Your task to perform on an android device: View the shopping cart on ebay.com. Add energizer triple a to the cart on ebay.com Image 0: 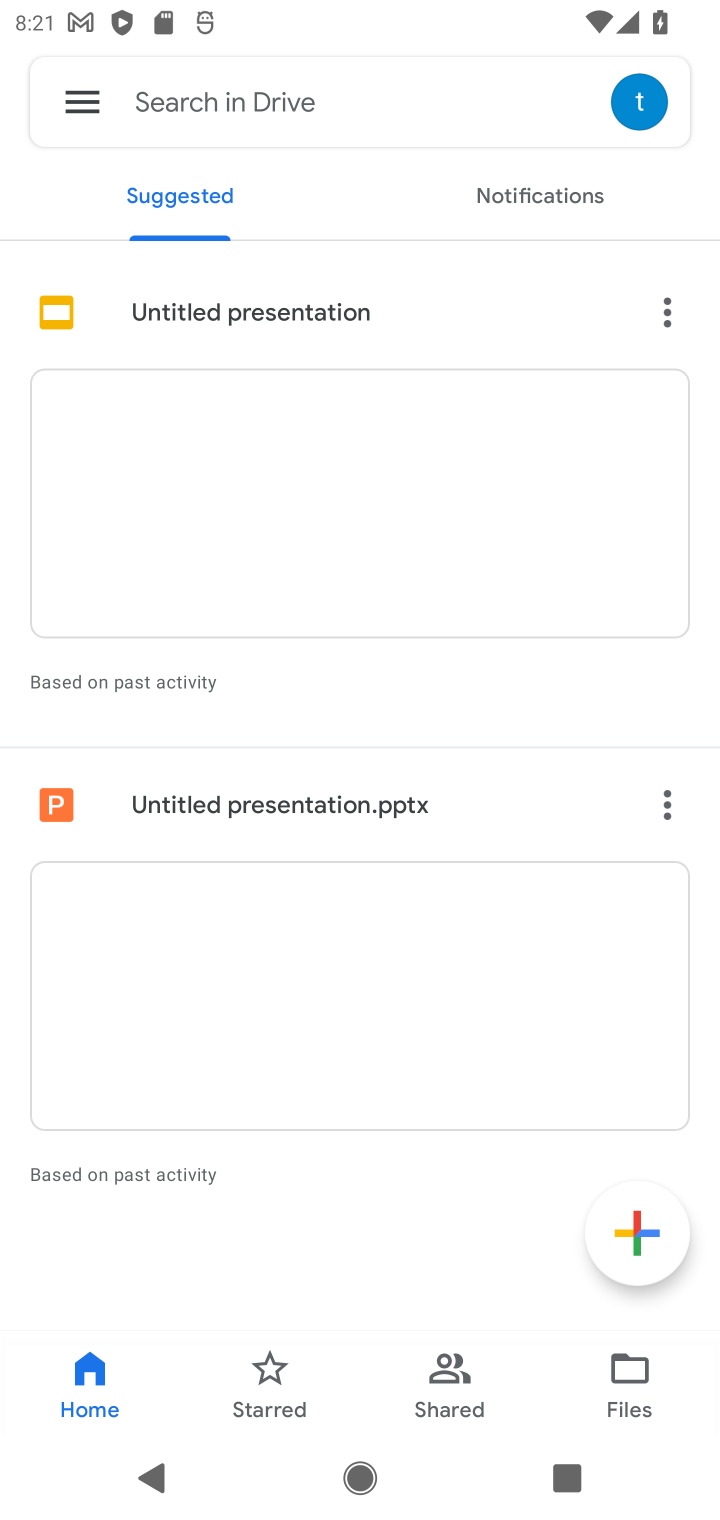
Step 0: press home button
Your task to perform on an android device: View the shopping cart on ebay.com. Add energizer triple a to the cart on ebay.com Image 1: 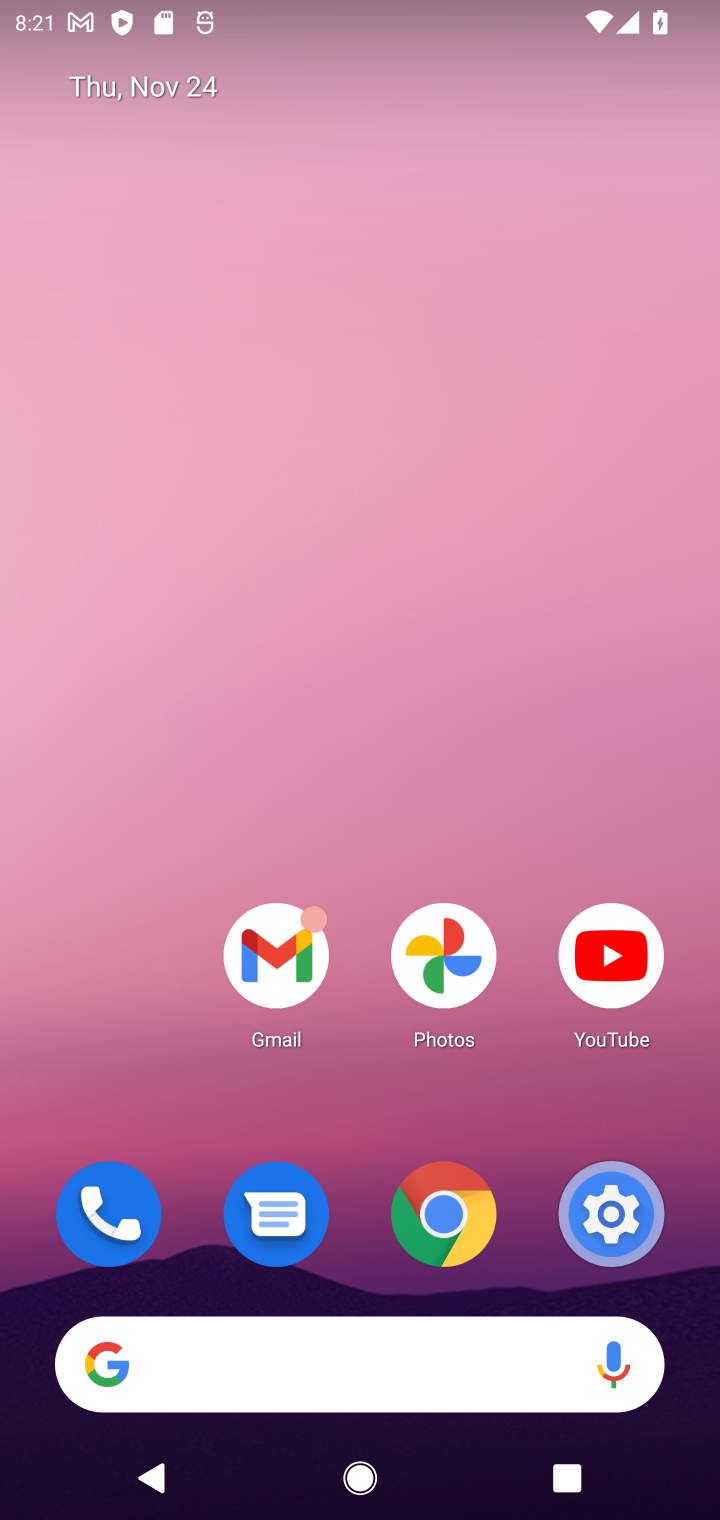
Step 1: click (367, 1341)
Your task to perform on an android device: View the shopping cart on ebay.com. Add energizer triple a to the cart on ebay.com Image 2: 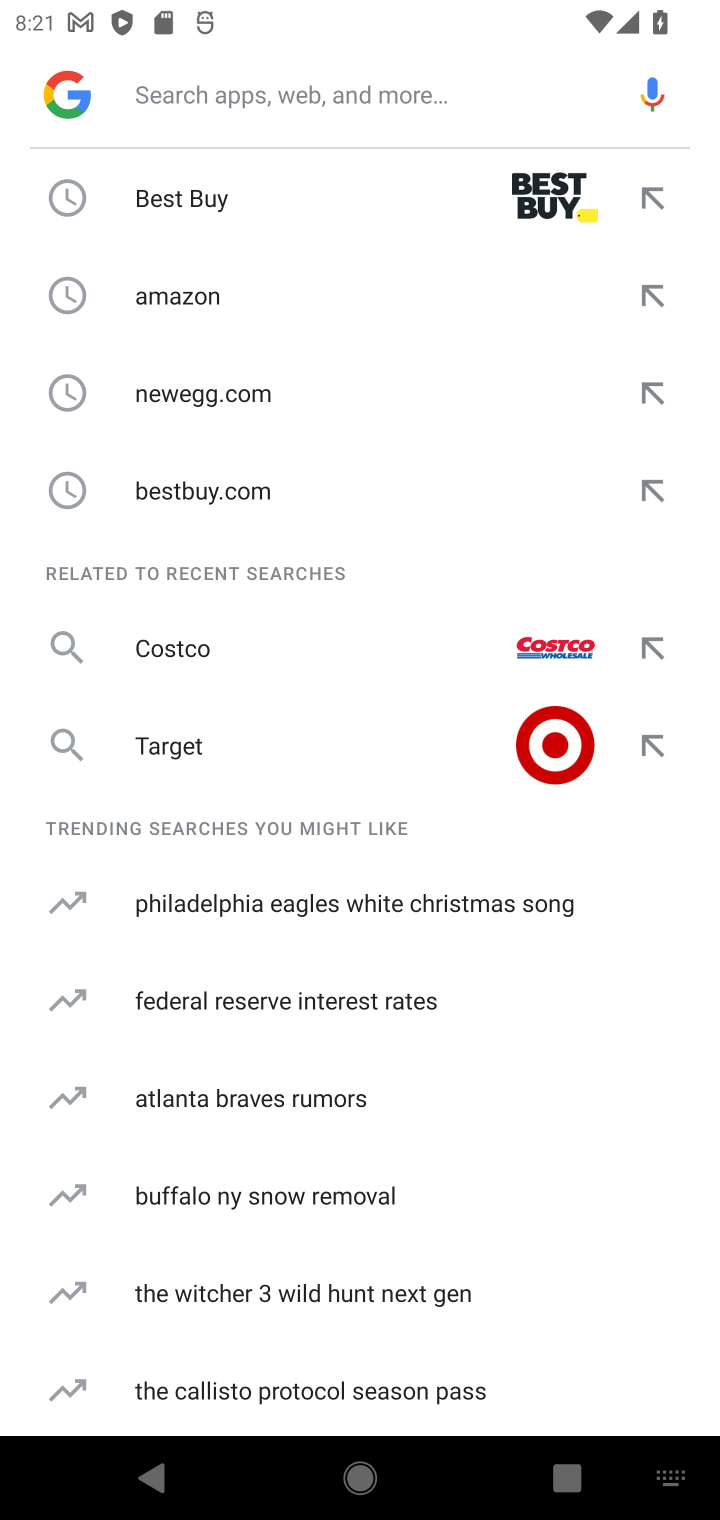
Step 2: type "ebay.com"
Your task to perform on an android device: View the shopping cart on ebay.com. Add energizer triple a to the cart on ebay.com Image 3: 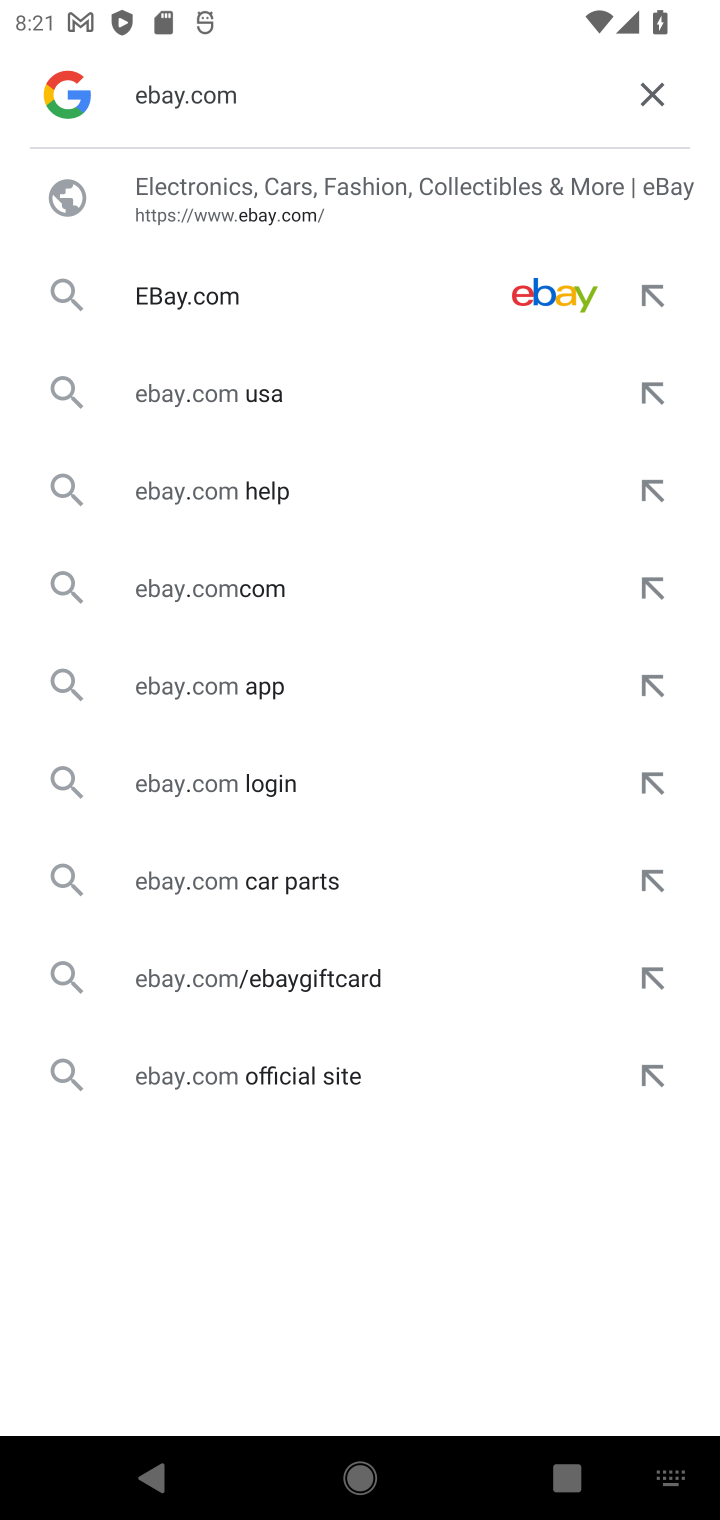
Step 3: click (239, 287)
Your task to perform on an android device: View the shopping cart on ebay.com. Add energizer triple a to the cart on ebay.com Image 4: 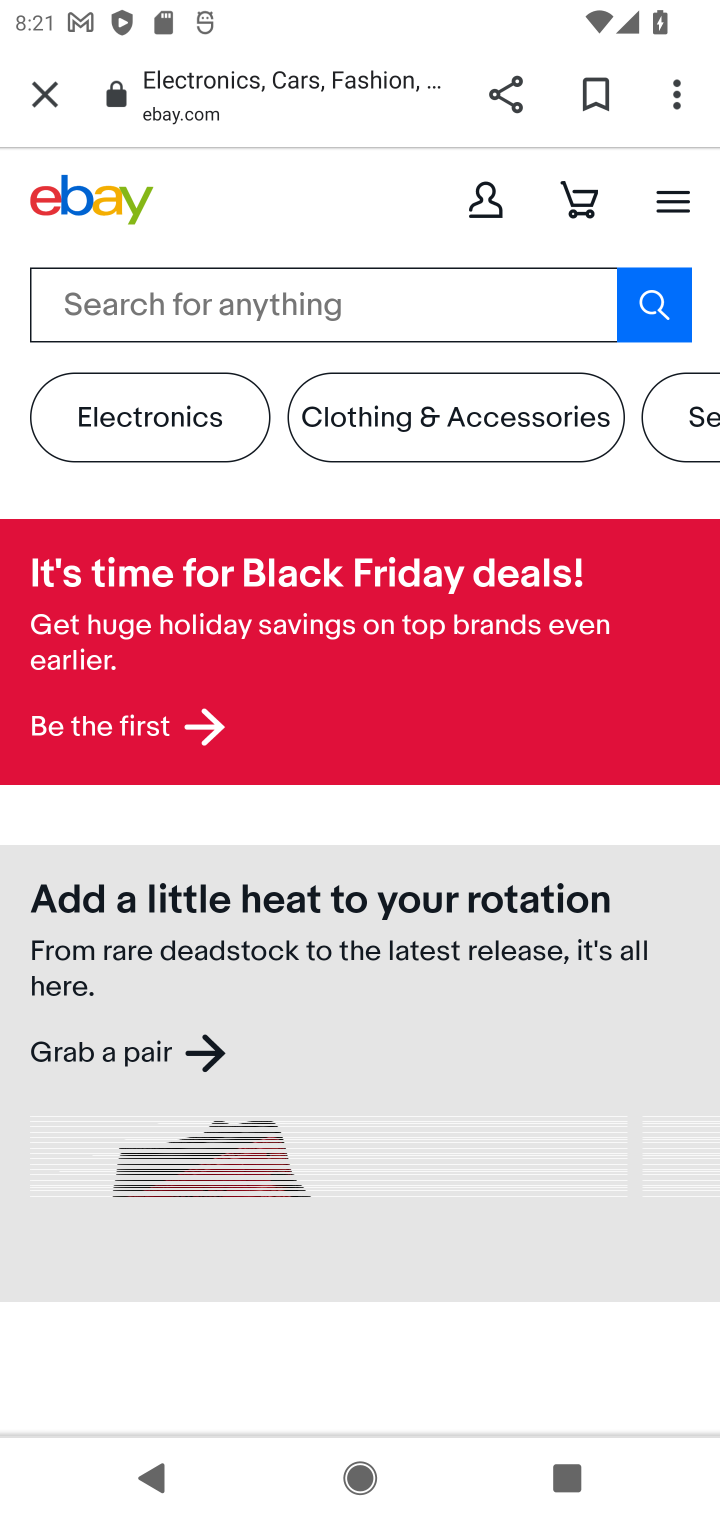
Step 4: click (226, 302)
Your task to perform on an android device: View the shopping cart on ebay.com. Add energizer triple a to the cart on ebay.com Image 5: 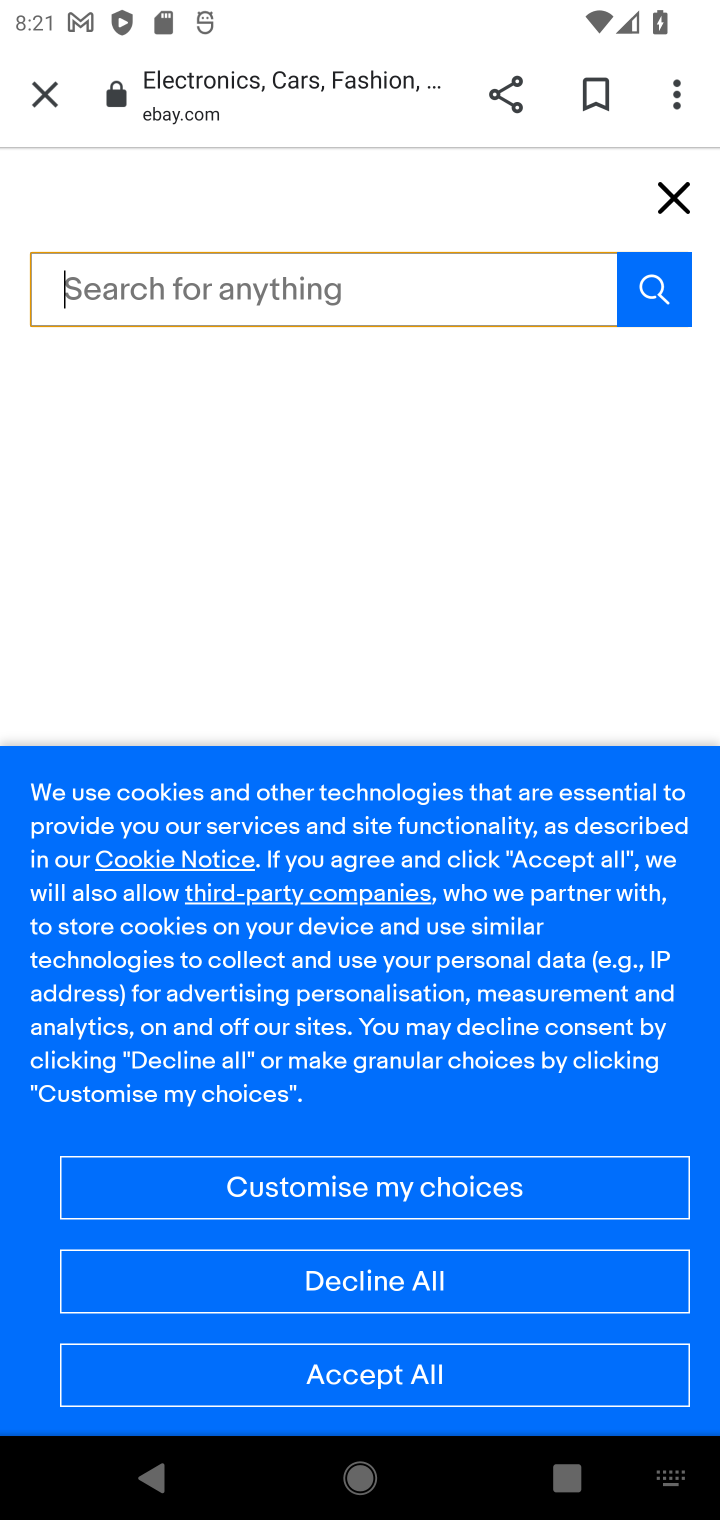
Step 5: type "energizer triple a"
Your task to perform on an android device: View the shopping cart on ebay.com. Add energizer triple a to the cart on ebay.com Image 6: 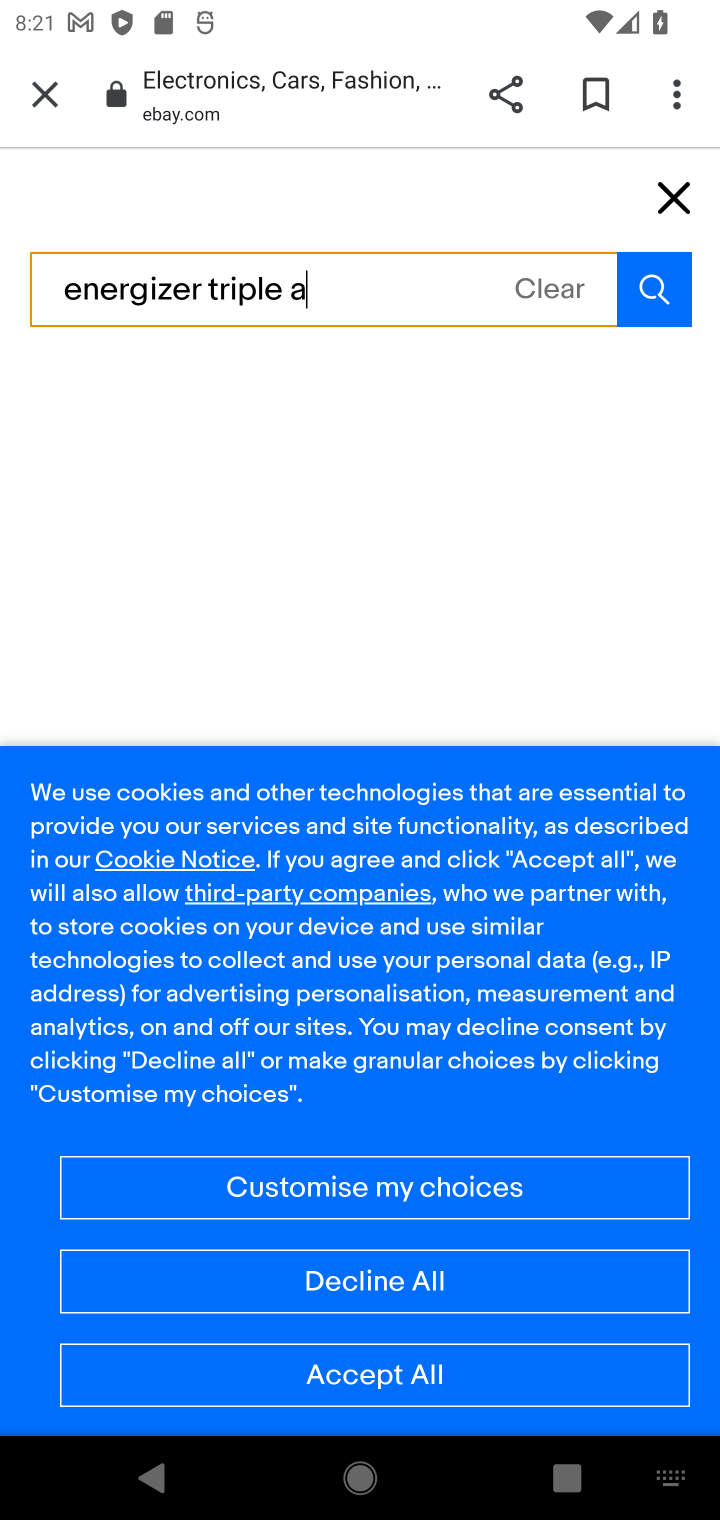
Step 6: click (659, 310)
Your task to perform on an android device: View the shopping cart on ebay.com. Add energizer triple a to the cart on ebay.com Image 7: 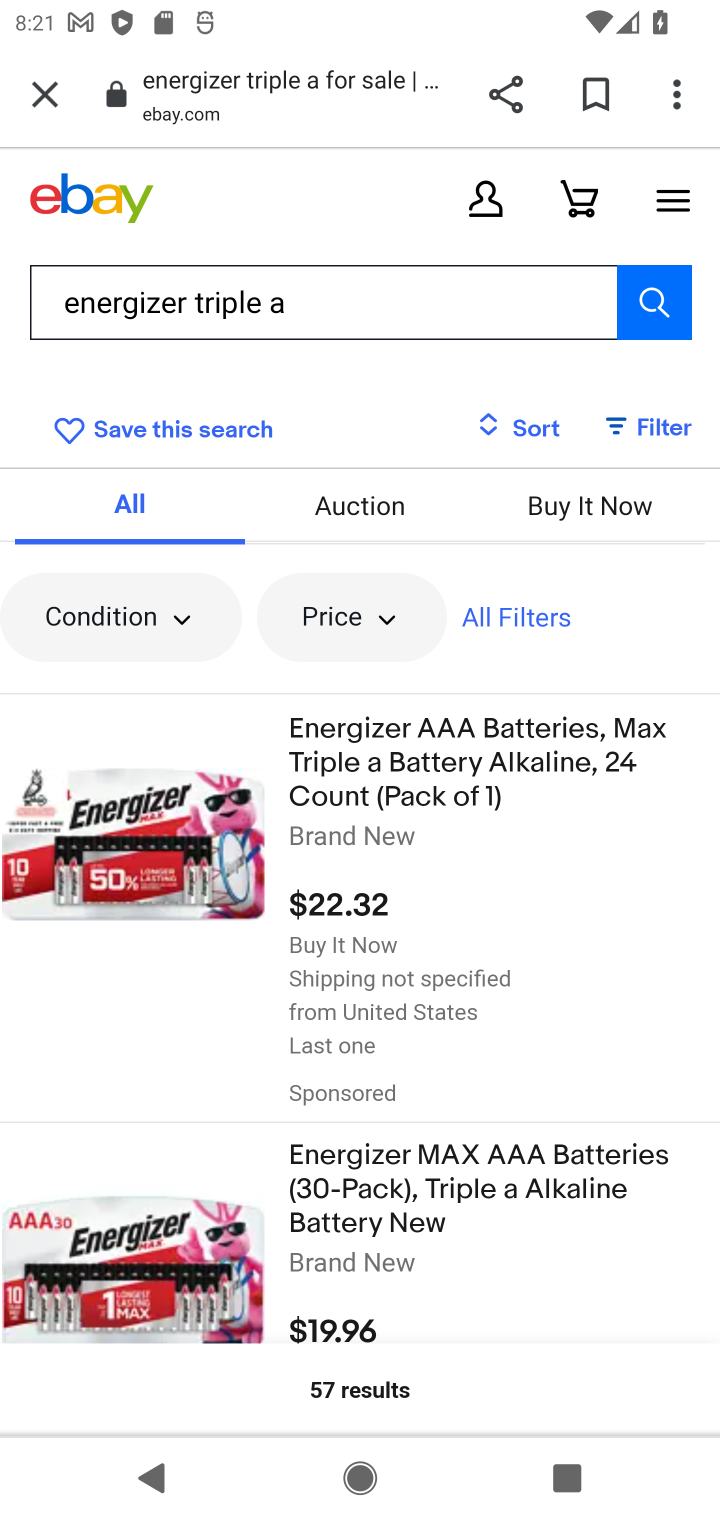
Step 7: click (422, 756)
Your task to perform on an android device: View the shopping cart on ebay.com. Add energizer triple a to the cart on ebay.com Image 8: 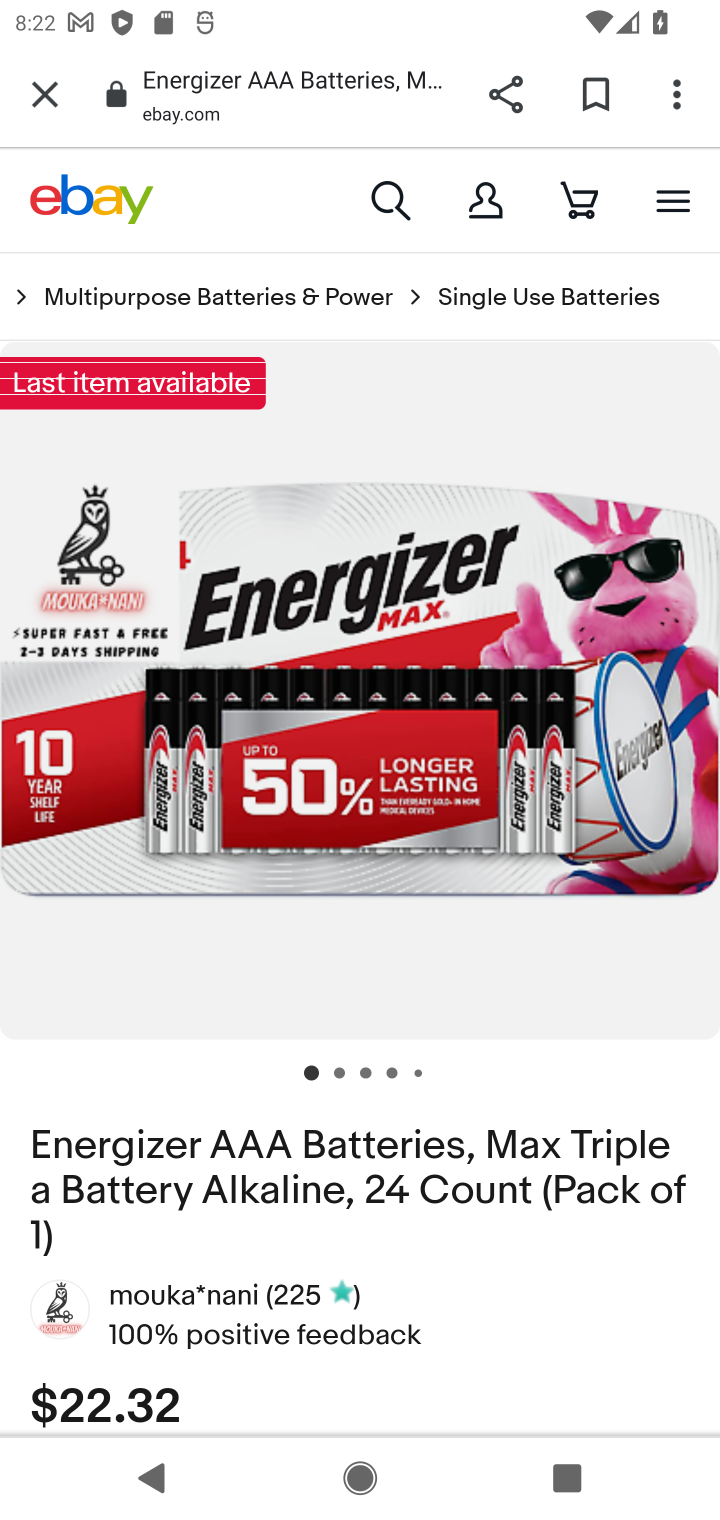
Step 8: drag from (186, 1132) to (193, 474)
Your task to perform on an android device: View the shopping cart on ebay.com. Add energizer triple a to the cart on ebay.com Image 9: 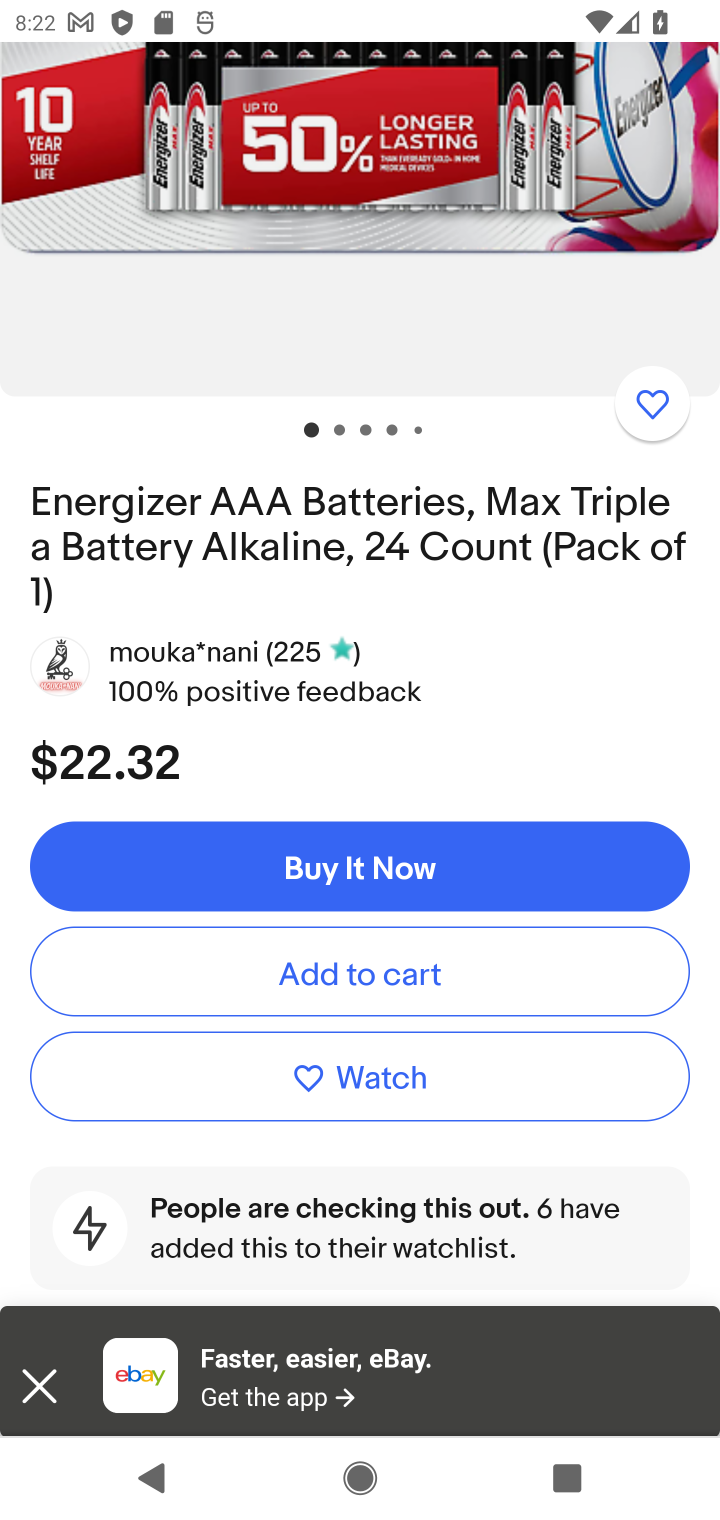
Step 9: click (481, 965)
Your task to perform on an android device: View the shopping cart on ebay.com. Add energizer triple a to the cart on ebay.com Image 10: 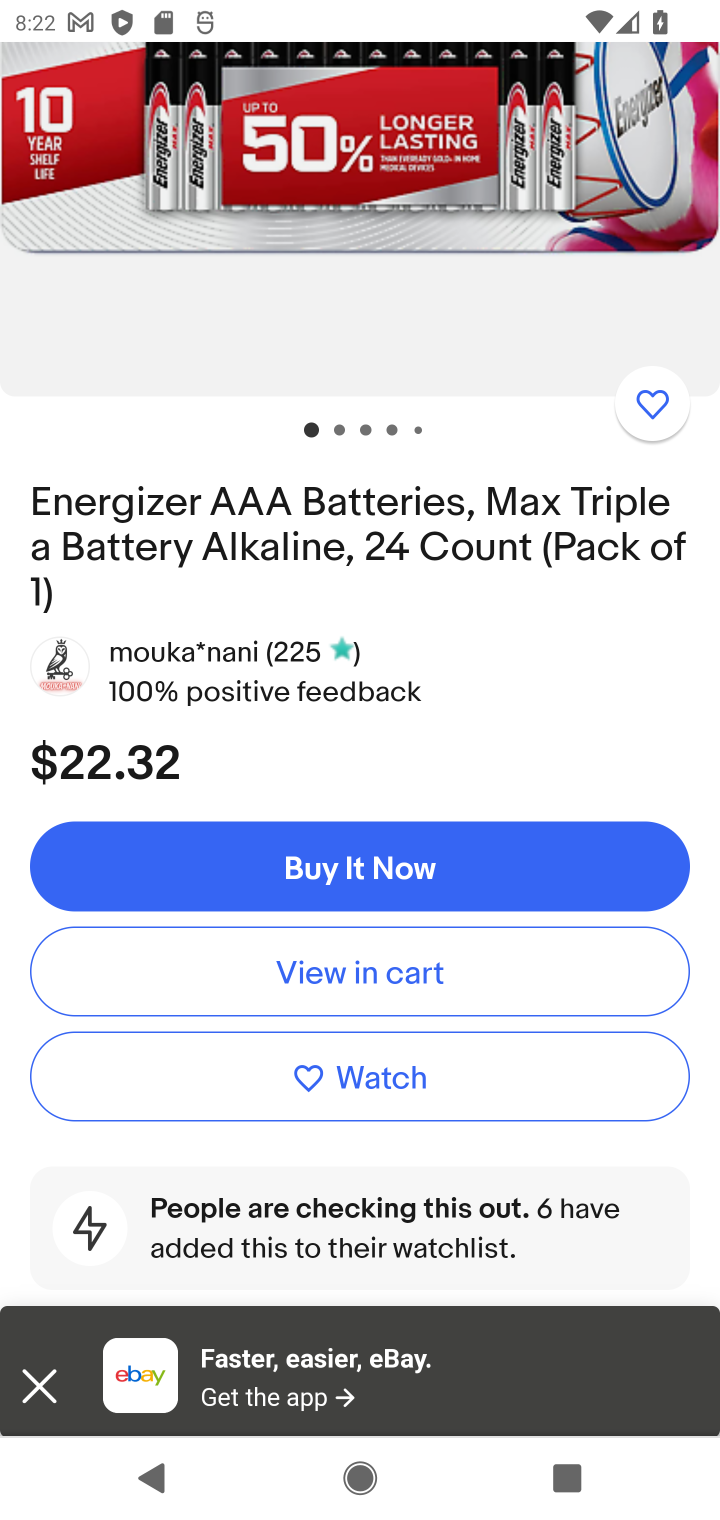
Step 10: task complete